Your task to perform on an android device: turn off location Image 0: 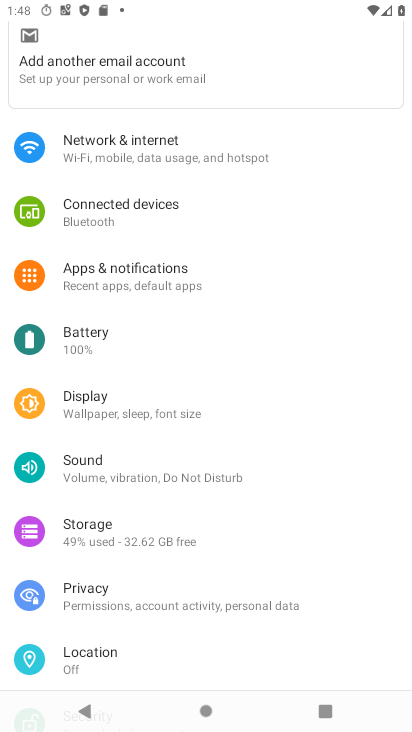
Step 0: drag from (153, 466) to (148, 180)
Your task to perform on an android device: turn off location Image 1: 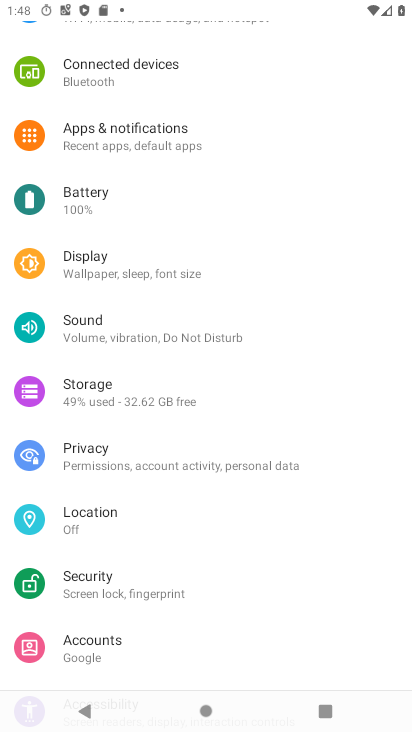
Step 1: click (75, 515)
Your task to perform on an android device: turn off location Image 2: 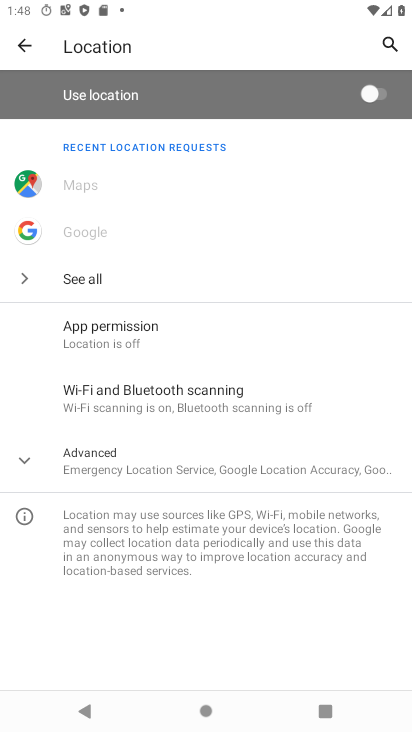
Step 2: task complete